Your task to perform on an android device: Open sound settings Image 0: 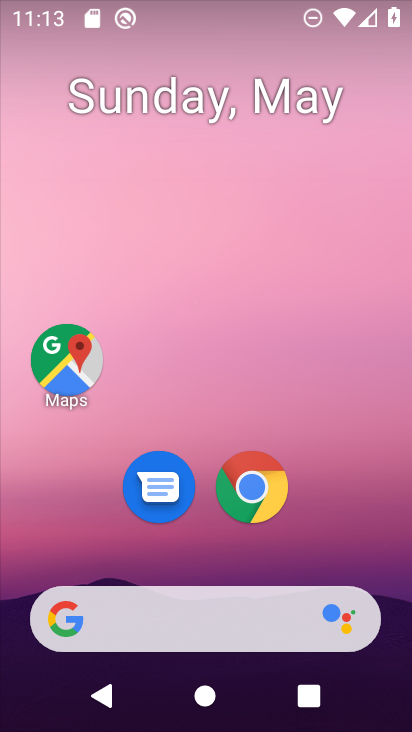
Step 0: drag from (385, 555) to (332, 181)
Your task to perform on an android device: Open sound settings Image 1: 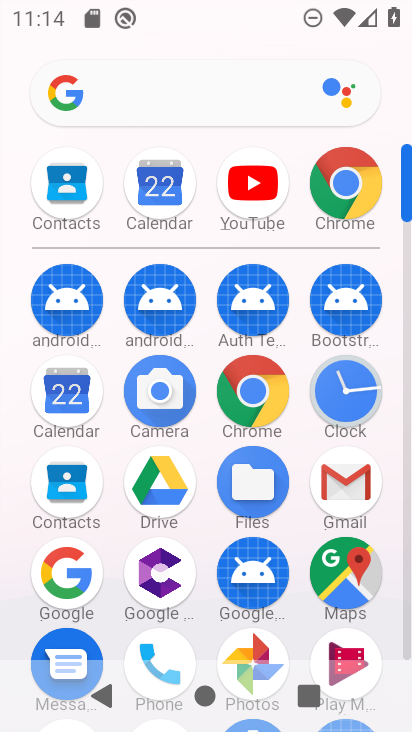
Step 1: click (408, 650)
Your task to perform on an android device: Open sound settings Image 2: 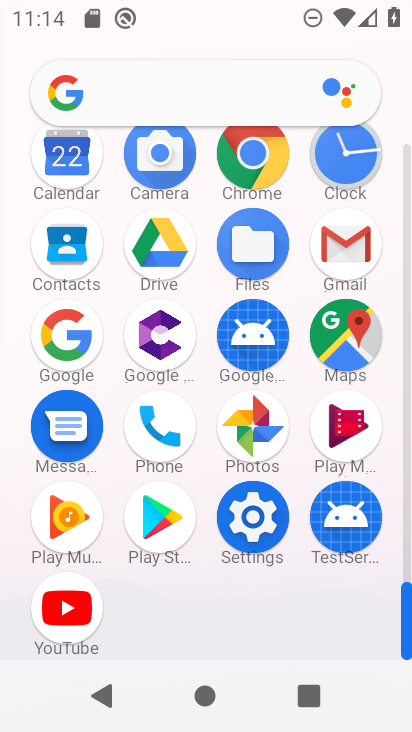
Step 2: click (252, 511)
Your task to perform on an android device: Open sound settings Image 3: 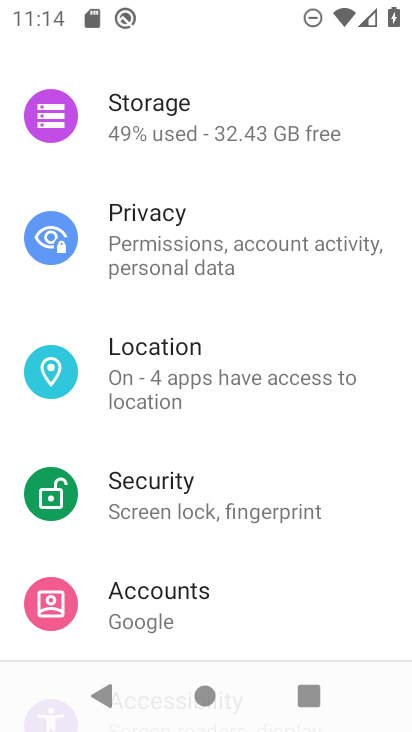
Step 3: drag from (269, 123) to (303, 524)
Your task to perform on an android device: Open sound settings Image 4: 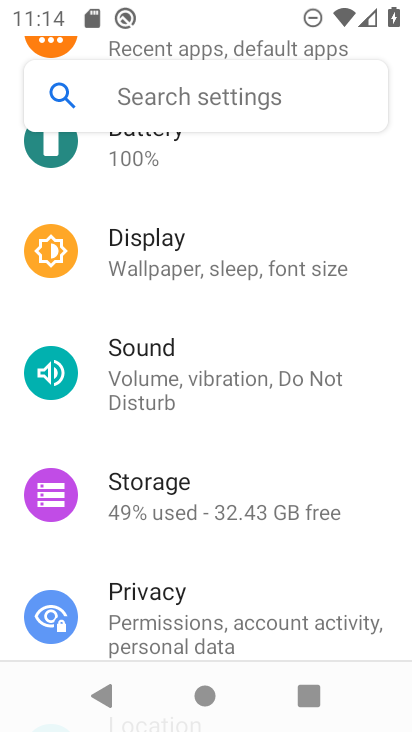
Step 4: drag from (260, 249) to (240, 336)
Your task to perform on an android device: Open sound settings Image 5: 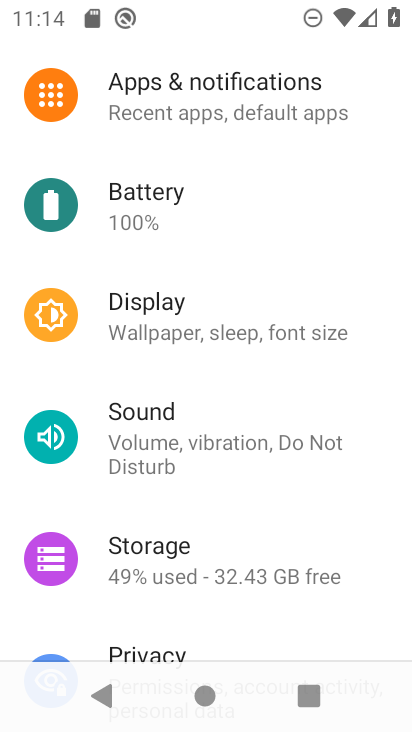
Step 5: click (237, 428)
Your task to perform on an android device: Open sound settings Image 6: 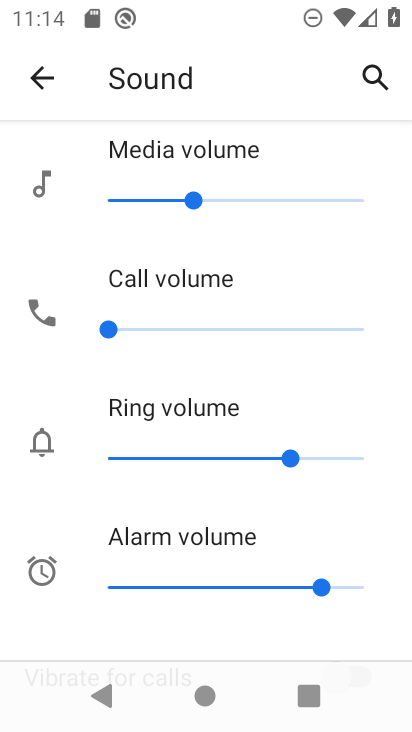
Step 6: task complete